Your task to perform on an android device: show emergency info Image 0: 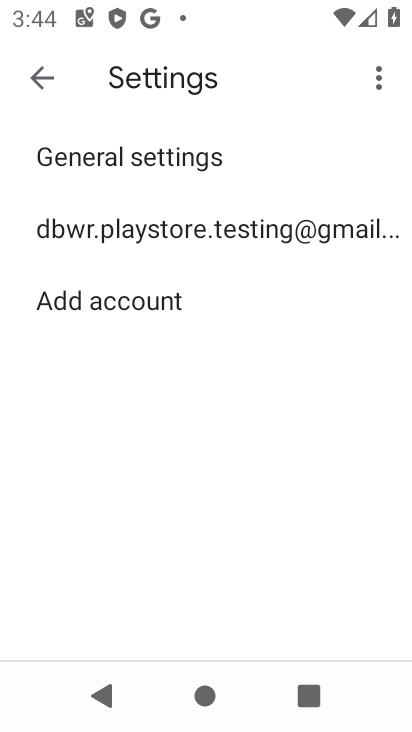
Step 0: press home button
Your task to perform on an android device: show emergency info Image 1: 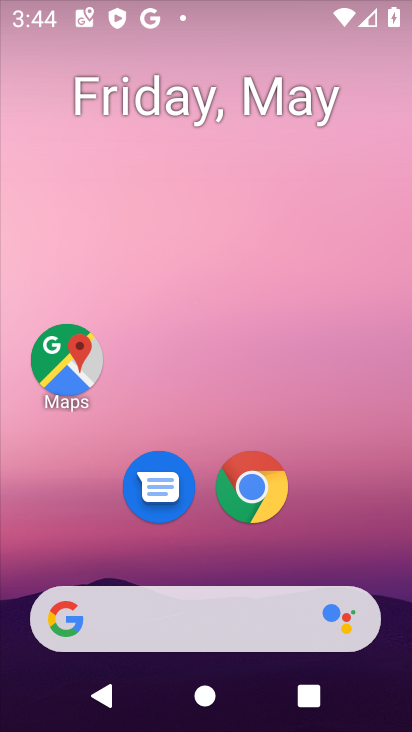
Step 1: drag from (390, 630) to (315, 37)
Your task to perform on an android device: show emergency info Image 2: 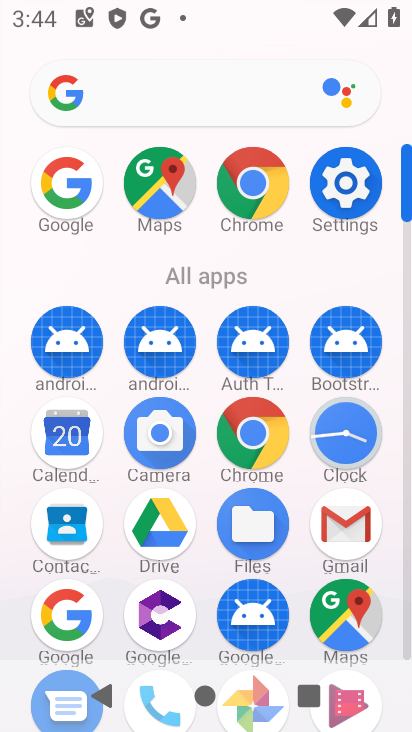
Step 2: click (338, 180)
Your task to perform on an android device: show emergency info Image 3: 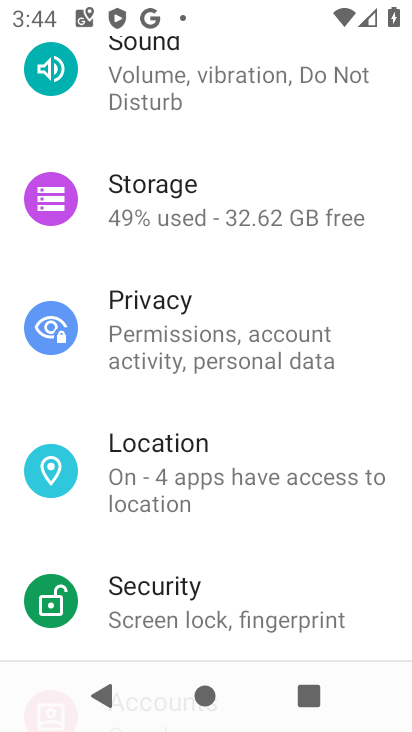
Step 3: drag from (206, 602) to (279, 57)
Your task to perform on an android device: show emergency info Image 4: 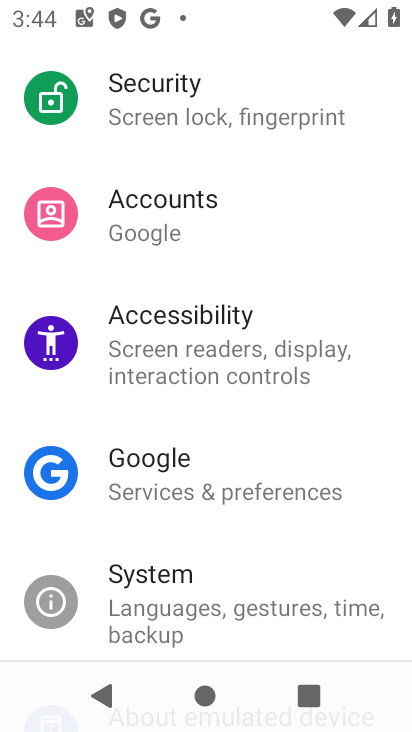
Step 4: drag from (191, 633) to (301, 20)
Your task to perform on an android device: show emergency info Image 5: 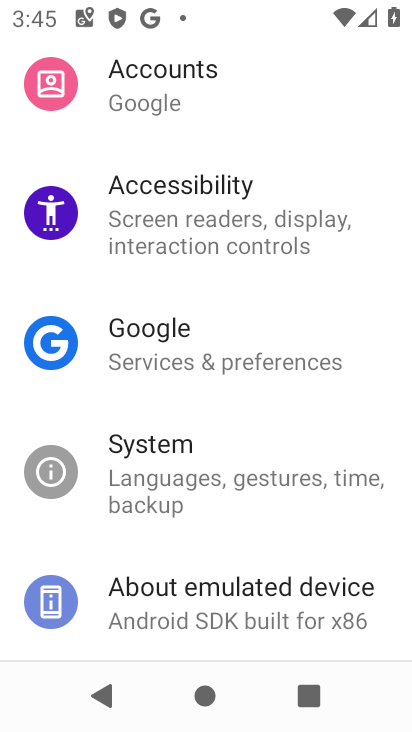
Step 5: click (193, 605)
Your task to perform on an android device: show emergency info Image 6: 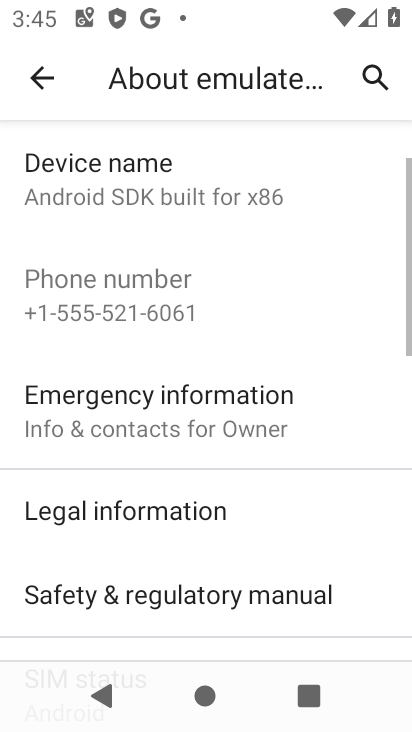
Step 6: drag from (193, 605) to (232, 454)
Your task to perform on an android device: show emergency info Image 7: 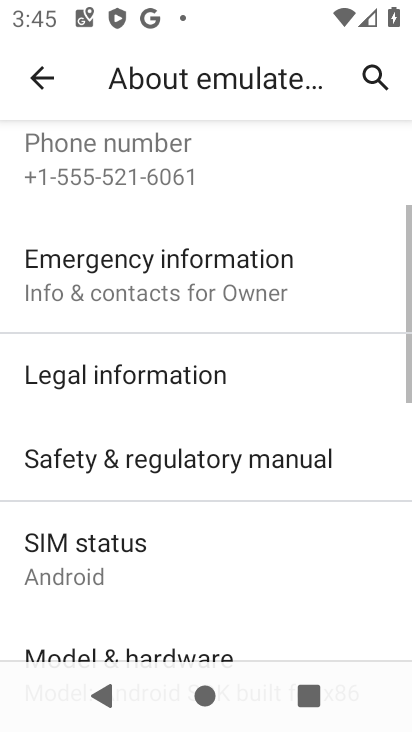
Step 7: click (212, 278)
Your task to perform on an android device: show emergency info Image 8: 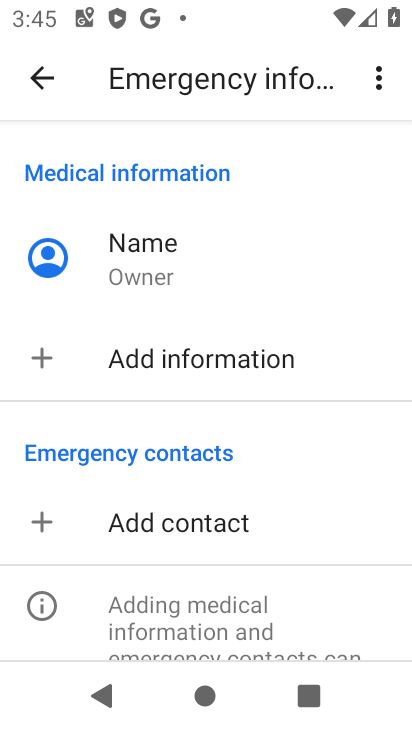
Step 8: task complete